Your task to perform on an android device: turn on bluetooth scan Image 0: 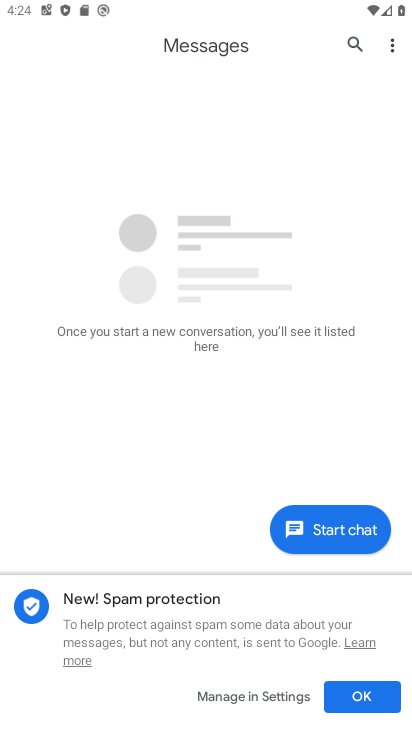
Step 0: press home button
Your task to perform on an android device: turn on bluetooth scan Image 1: 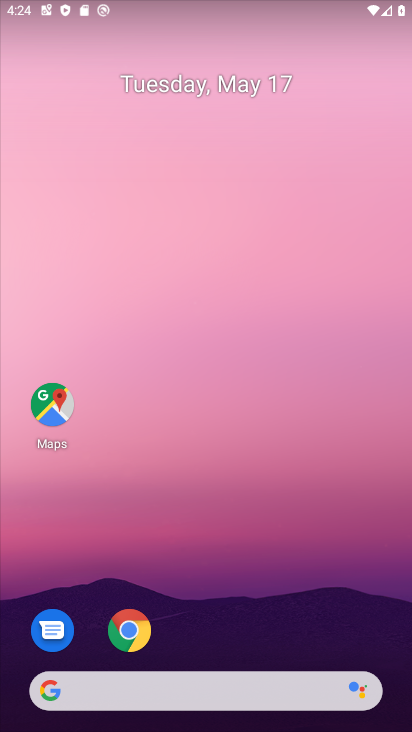
Step 1: drag from (229, 708) to (229, 109)
Your task to perform on an android device: turn on bluetooth scan Image 2: 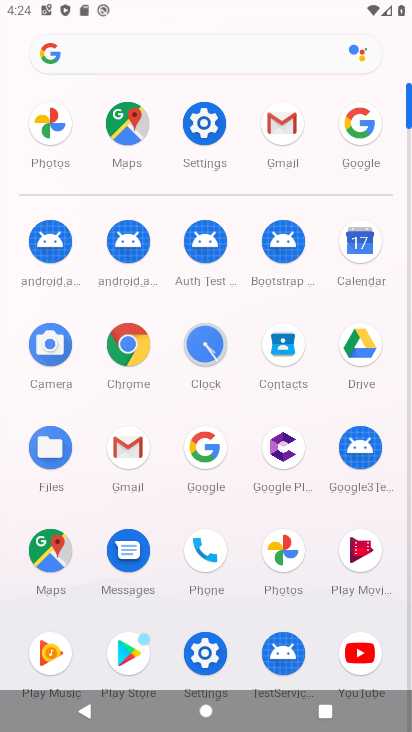
Step 2: click (204, 113)
Your task to perform on an android device: turn on bluetooth scan Image 3: 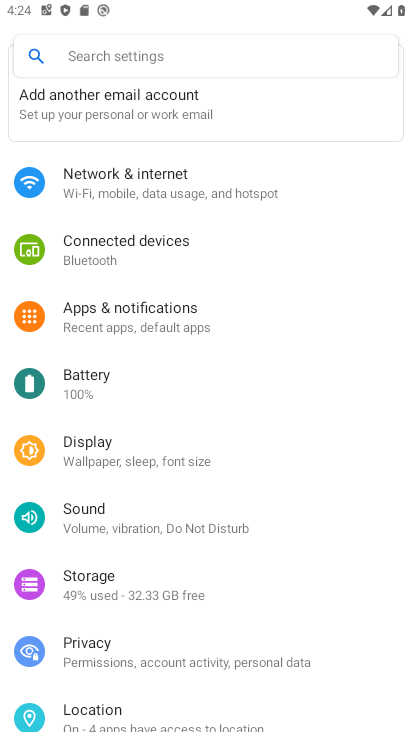
Step 3: click (120, 705)
Your task to perform on an android device: turn on bluetooth scan Image 4: 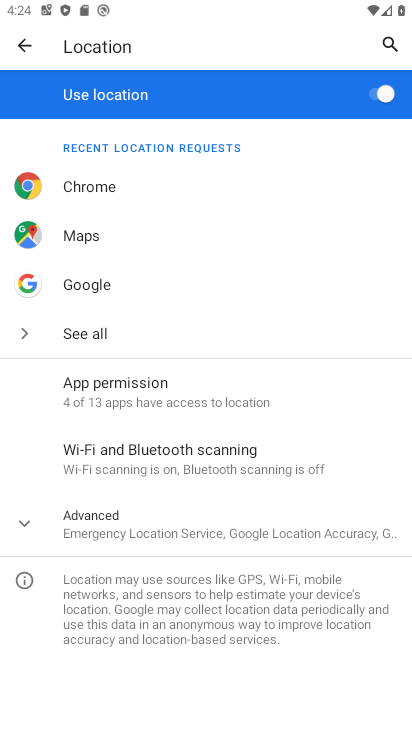
Step 4: click (151, 459)
Your task to perform on an android device: turn on bluetooth scan Image 5: 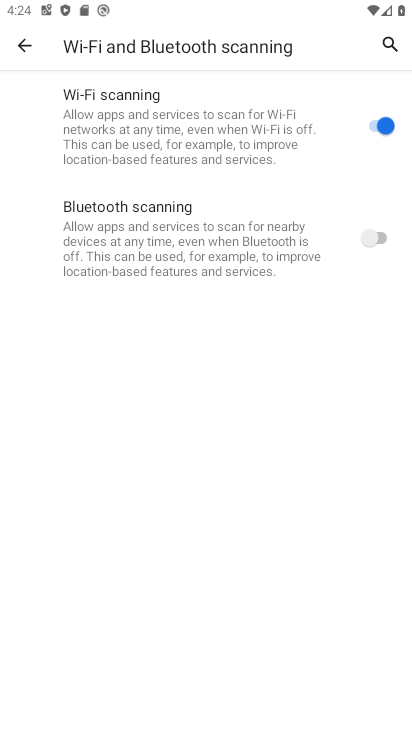
Step 5: click (381, 242)
Your task to perform on an android device: turn on bluetooth scan Image 6: 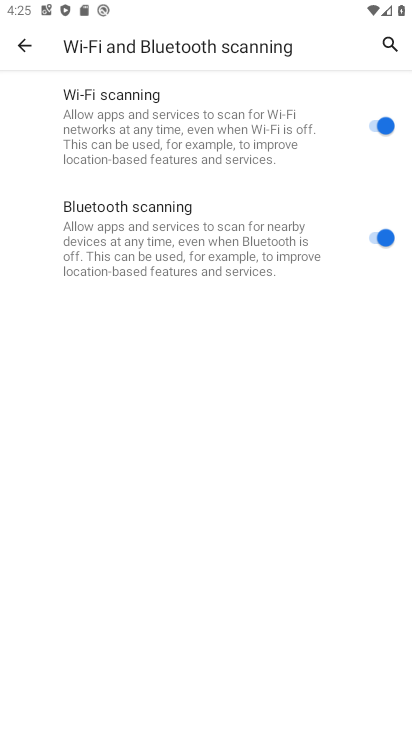
Step 6: task complete